Your task to perform on an android device: all mails in gmail Image 0: 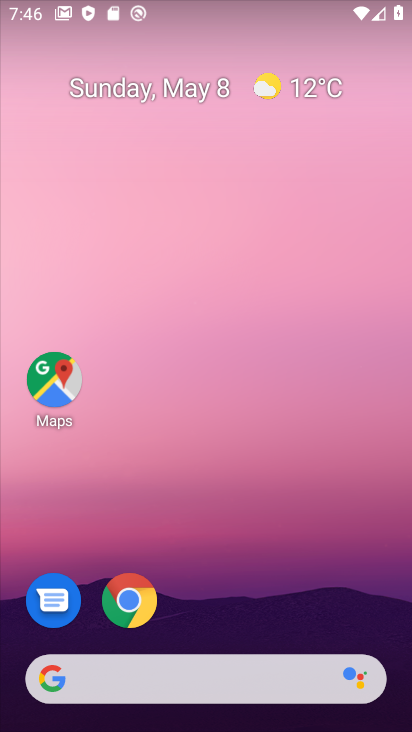
Step 0: drag from (210, 629) to (168, 4)
Your task to perform on an android device: all mails in gmail Image 1: 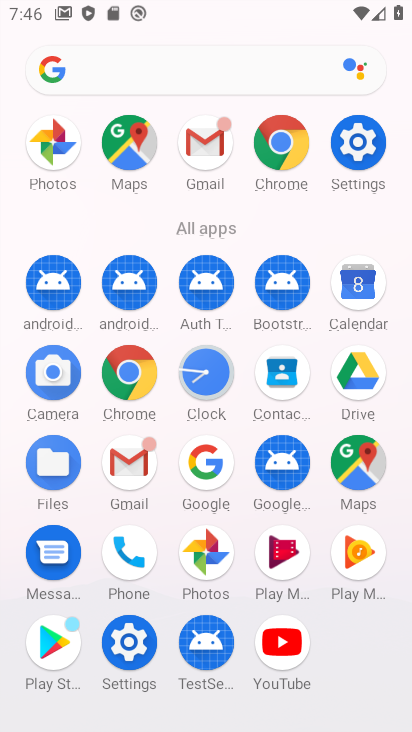
Step 1: click (209, 158)
Your task to perform on an android device: all mails in gmail Image 2: 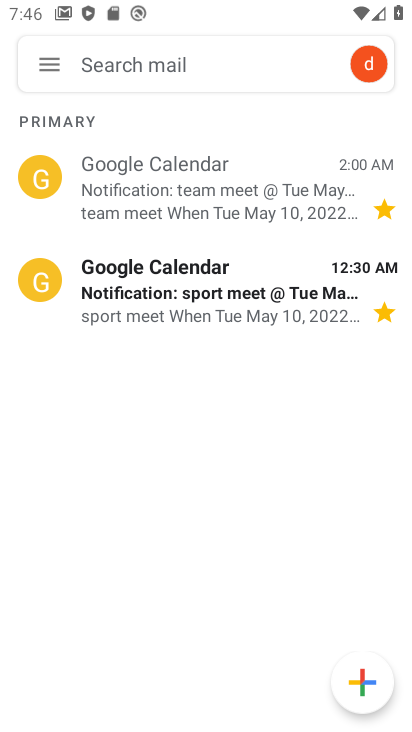
Step 2: click (63, 71)
Your task to perform on an android device: all mails in gmail Image 3: 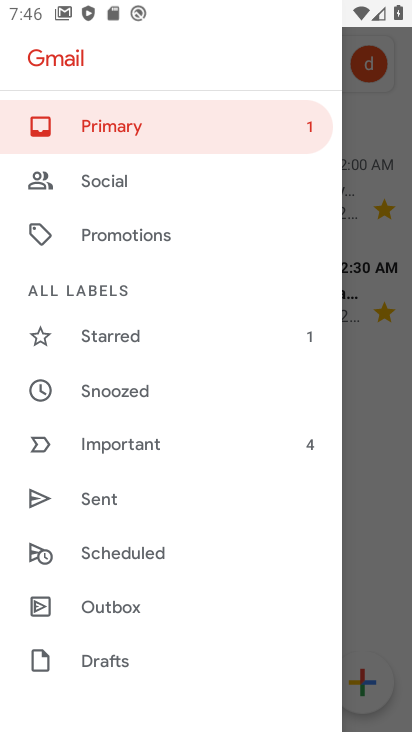
Step 3: drag from (251, 670) to (268, 315)
Your task to perform on an android device: all mails in gmail Image 4: 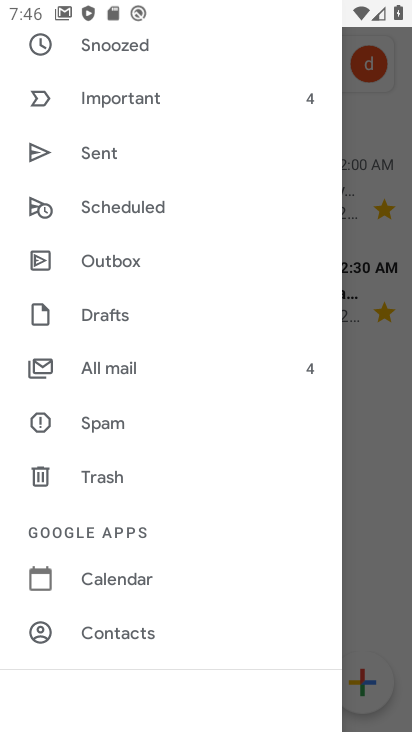
Step 4: click (182, 374)
Your task to perform on an android device: all mails in gmail Image 5: 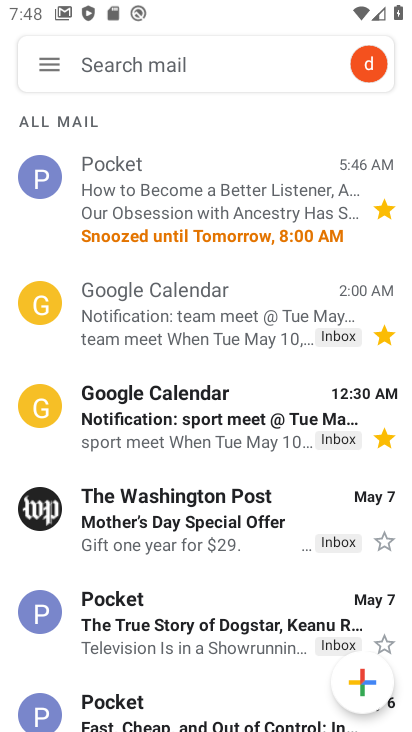
Step 5: task complete